Your task to perform on an android device: What's the weather today? Image 0: 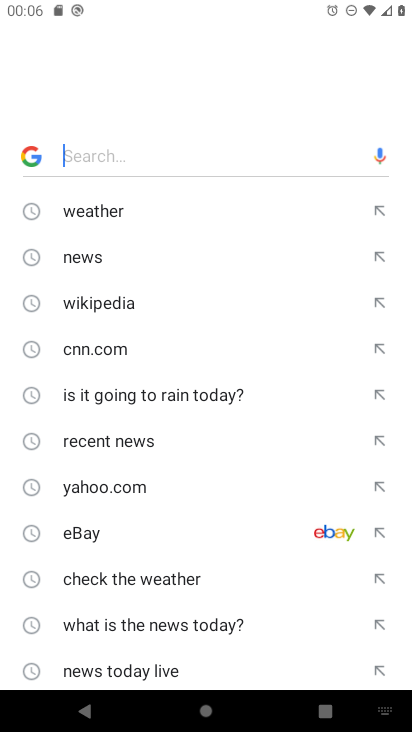
Step 0: press home button
Your task to perform on an android device: What's the weather today? Image 1: 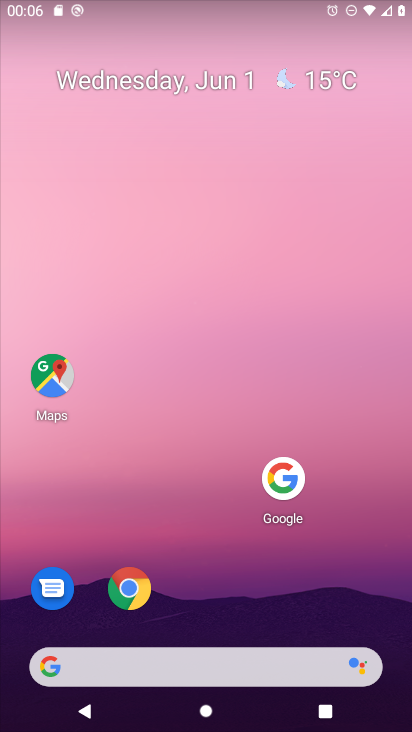
Step 1: click (306, 86)
Your task to perform on an android device: What's the weather today? Image 2: 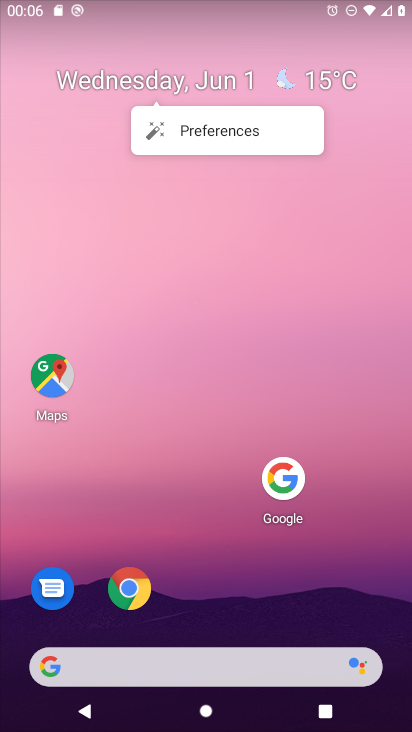
Step 2: click (311, 80)
Your task to perform on an android device: What's the weather today? Image 3: 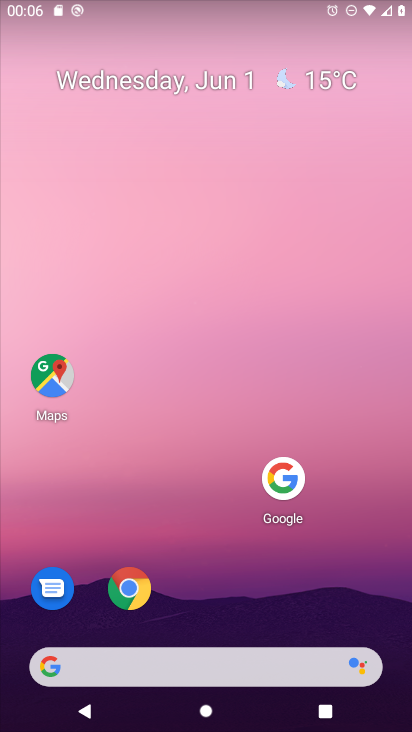
Step 3: click (288, 83)
Your task to perform on an android device: What's the weather today? Image 4: 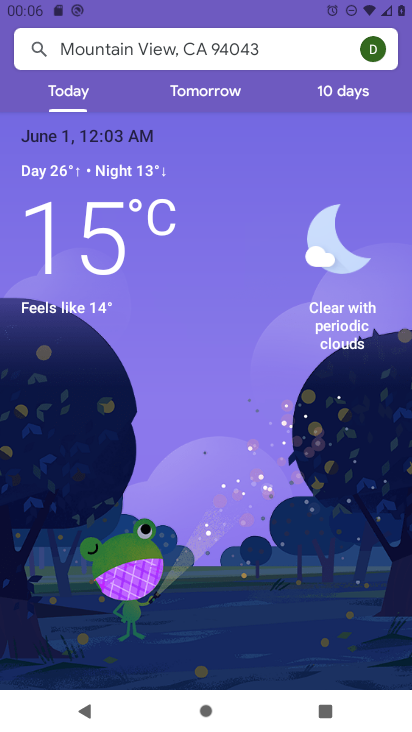
Step 4: task complete